Your task to perform on an android device: Go to settings Image 0: 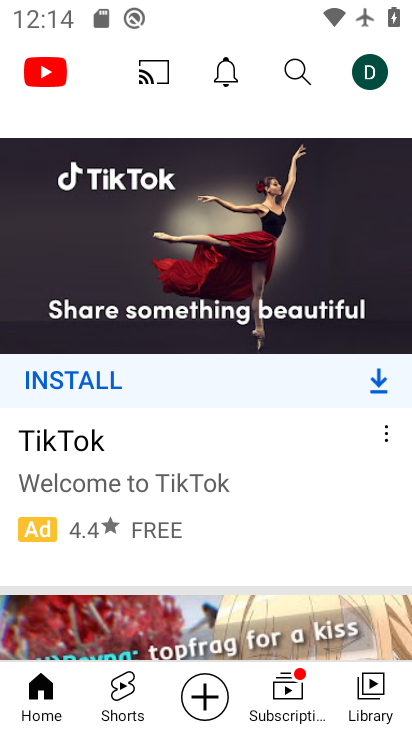
Step 0: press home button
Your task to perform on an android device: Go to settings Image 1: 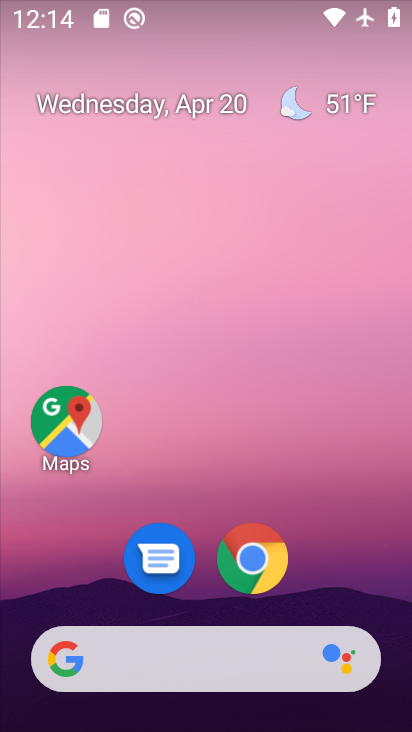
Step 1: drag from (390, 618) to (349, 264)
Your task to perform on an android device: Go to settings Image 2: 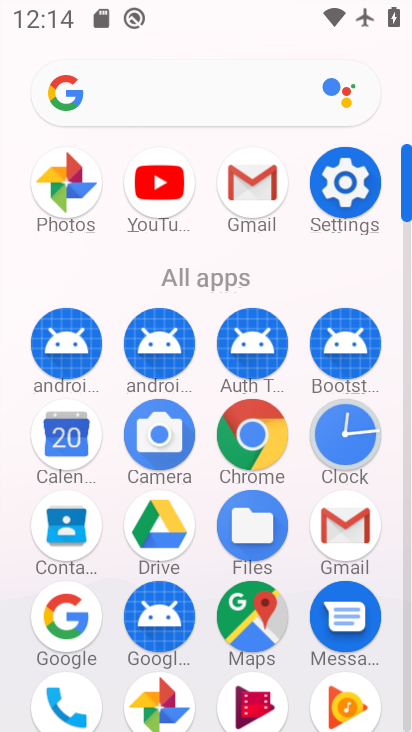
Step 2: click (408, 681)
Your task to perform on an android device: Go to settings Image 3: 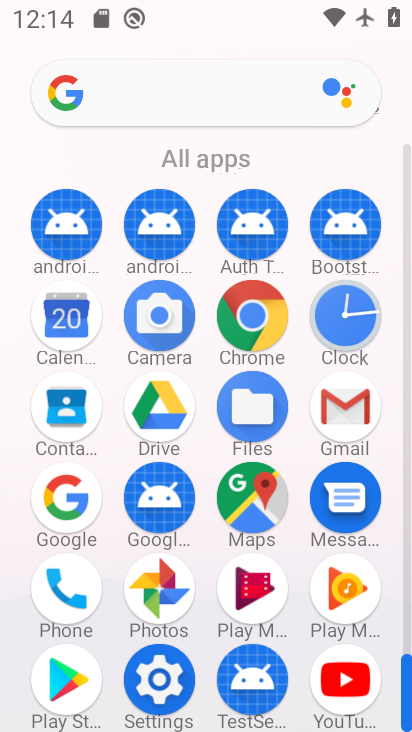
Step 3: click (162, 681)
Your task to perform on an android device: Go to settings Image 4: 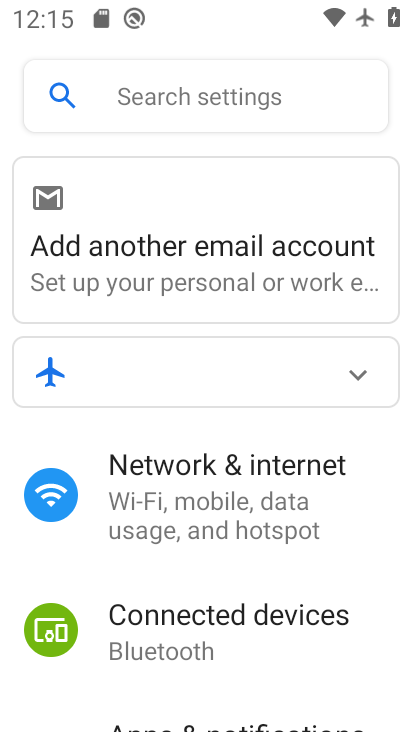
Step 4: task complete